Your task to perform on an android device: delete browsing data in the chrome app Image 0: 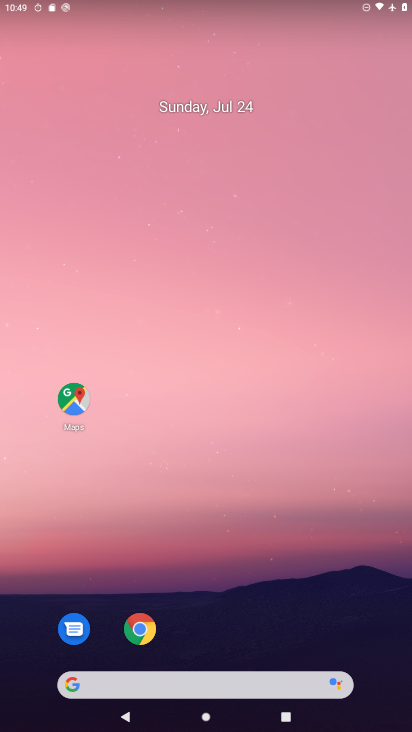
Step 0: drag from (205, 624) to (215, 284)
Your task to perform on an android device: delete browsing data in the chrome app Image 1: 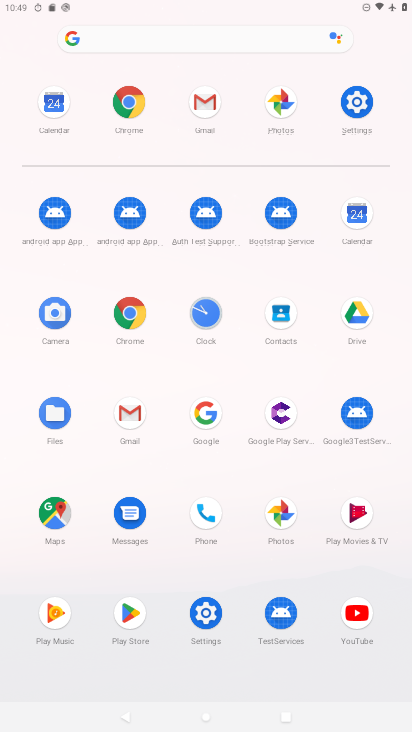
Step 1: click (118, 105)
Your task to perform on an android device: delete browsing data in the chrome app Image 2: 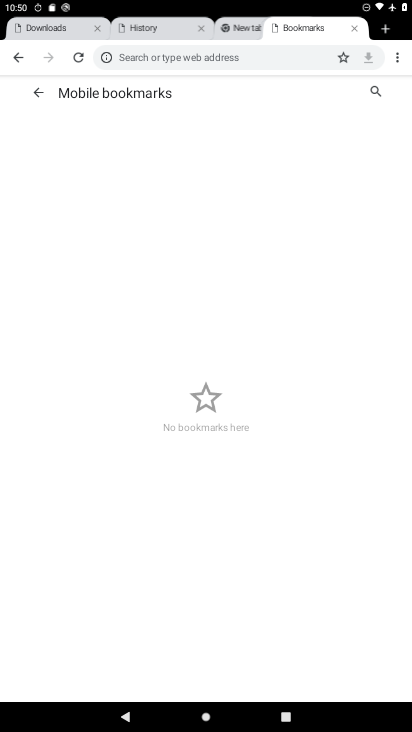
Step 2: click (397, 63)
Your task to perform on an android device: delete browsing data in the chrome app Image 3: 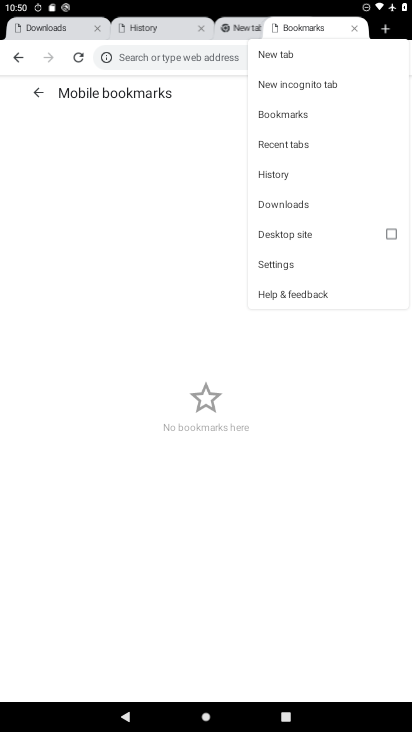
Step 3: click (283, 173)
Your task to perform on an android device: delete browsing data in the chrome app Image 4: 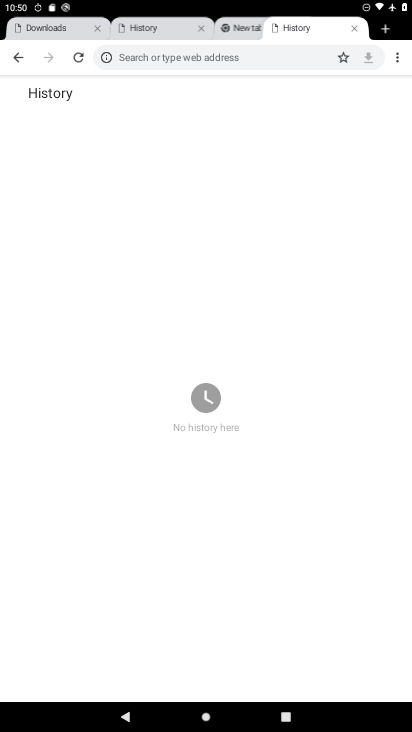
Step 4: task complete